Your task to perform on an android device: toggle notifications settings in the gmail app Image 0: 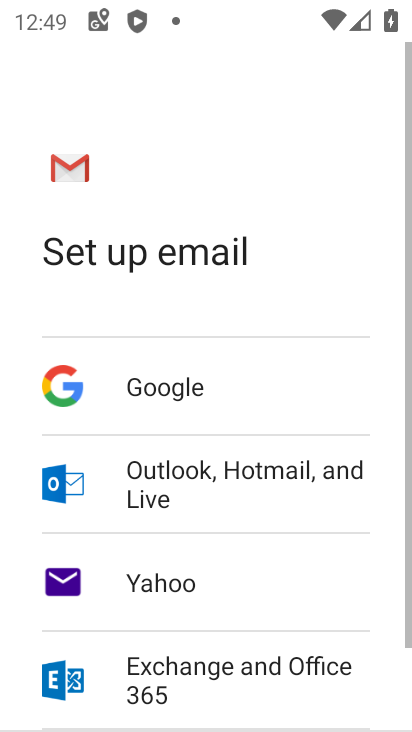
Step 0: press home button
Your task to perform on an android device: toggle notifications settings in the gmail app Image 1: 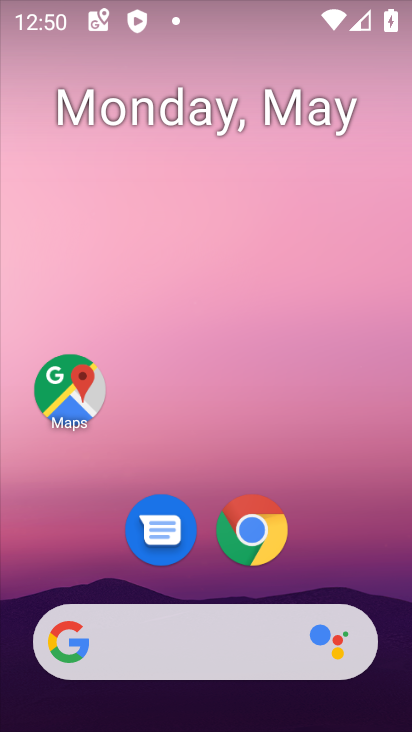
Step 1: drag from (184, 632) to (4, 45)
Your task to perform on an android device: toggle notifications settings in the gmail app Image 2: 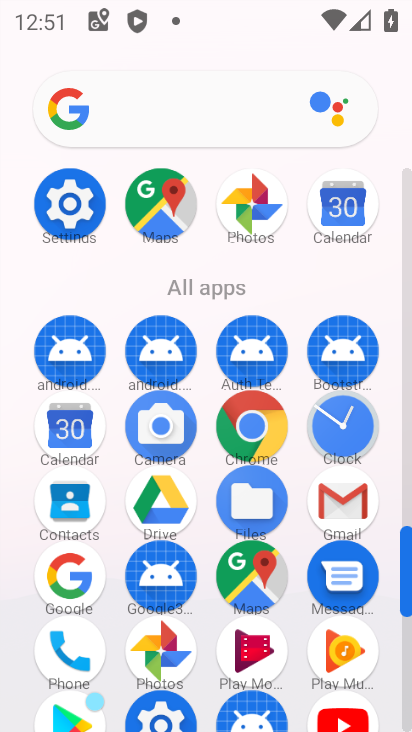
Step 2: click (337, 485)
Your task to perform on an android device: toggle notifications settings in the gmail app Image 3: 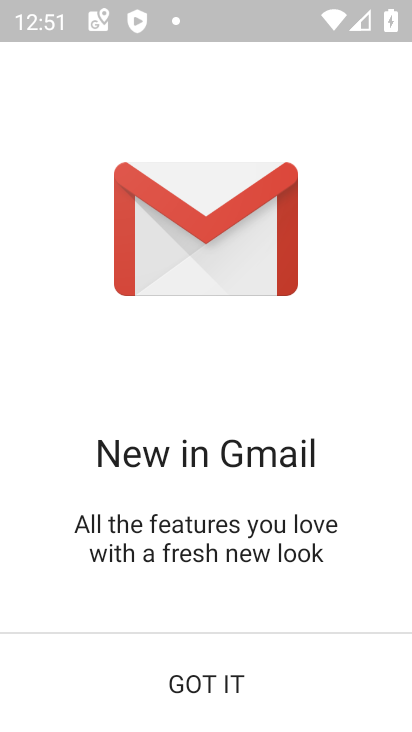
Step 3: click (279, 685)
Your task to perform on an android device: toggle notifications settings in the gmail app Image 4: 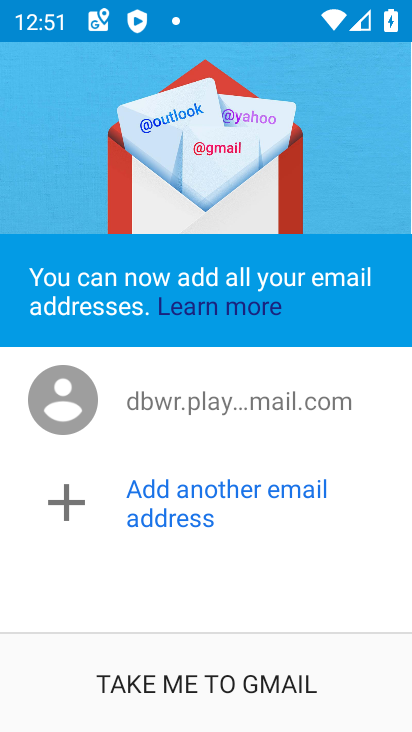
Step 4: click (245, 672)
Your task to perform on an android device: toggle notifications settings in the gmail app Image 5: 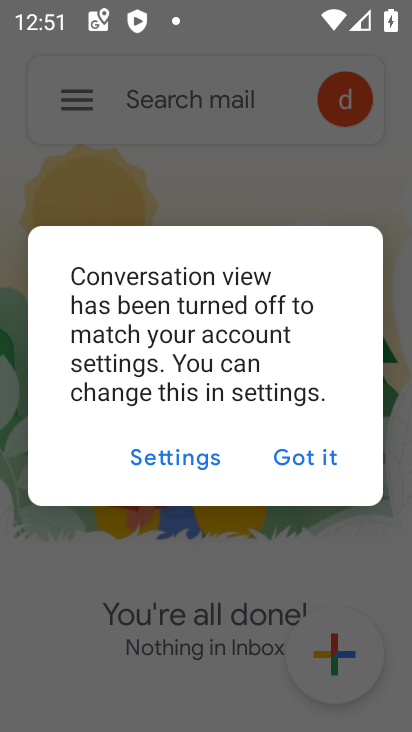
Step 5: click (327, 440)
Your task to perform on an android device: toggle notifications settings in the gmail app Image 6: 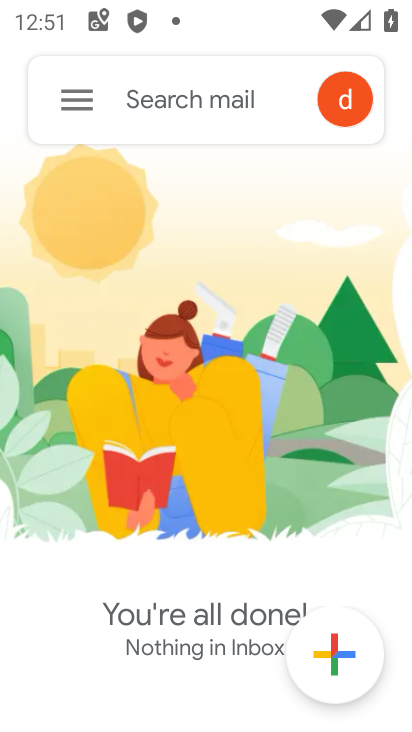
Step 6: click (71, 110)
Your task to perform on an android device: toggle notifications settings in the gmail app Image 7: 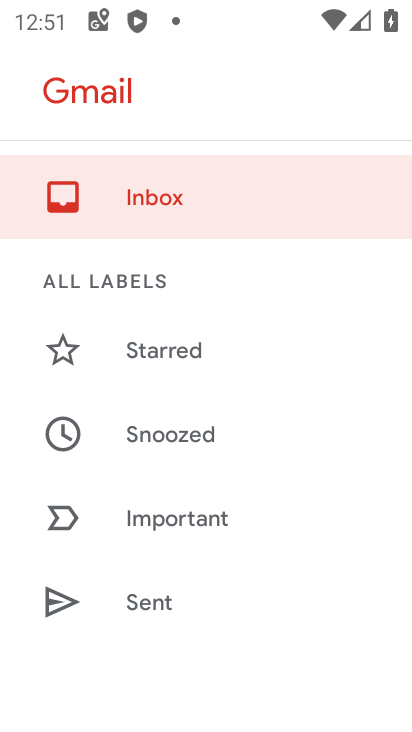
Step 7: drag from (161, 556) to (135, 6)
Your task to perform on an android device: toggle notifications settings in the gmail app Image 8: 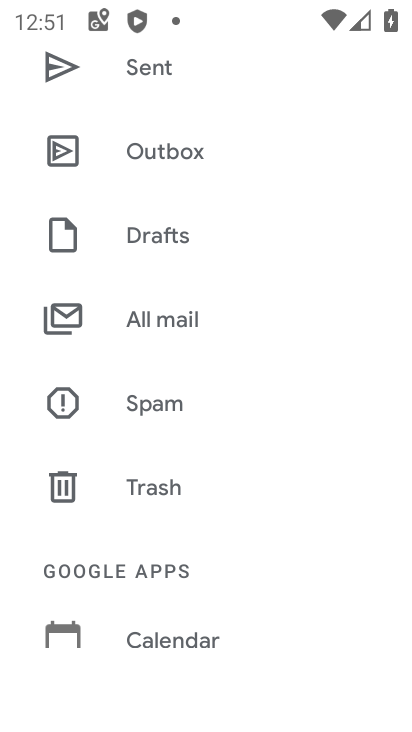
Step 8: drag from (147, 626) to (45, 43)
Your task to perform on an android device: toggle notifications settings in the gmail app Image 9: 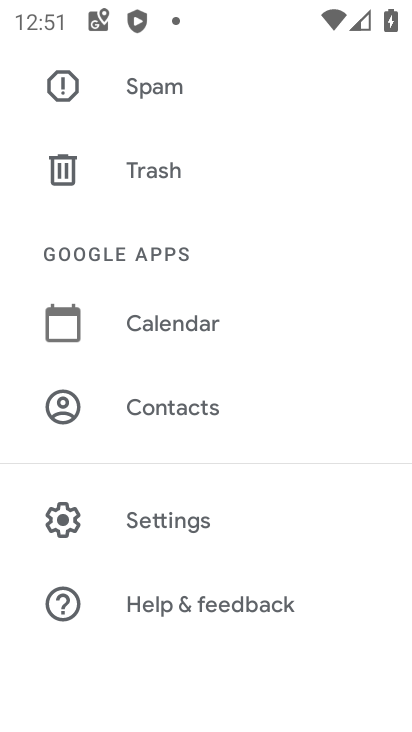
Step 9: click (166, 524)
Your task to perform on an android device: toggle notifications settings in the gmail app Image 10: 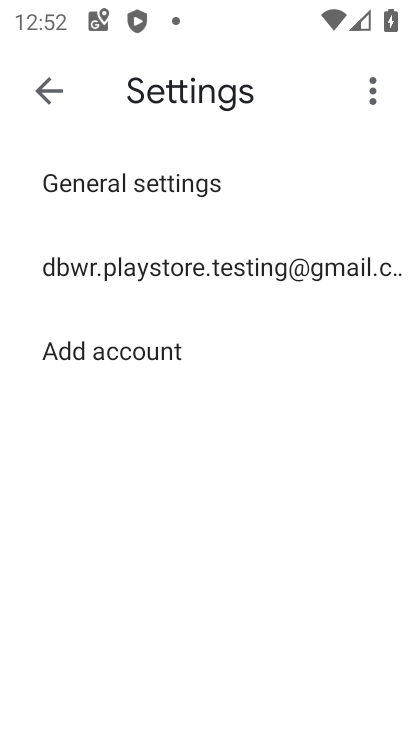
Step 10: click (128, 261)
Your task to perform on an android device: toggle notifications settings in the gmail app Image 11: 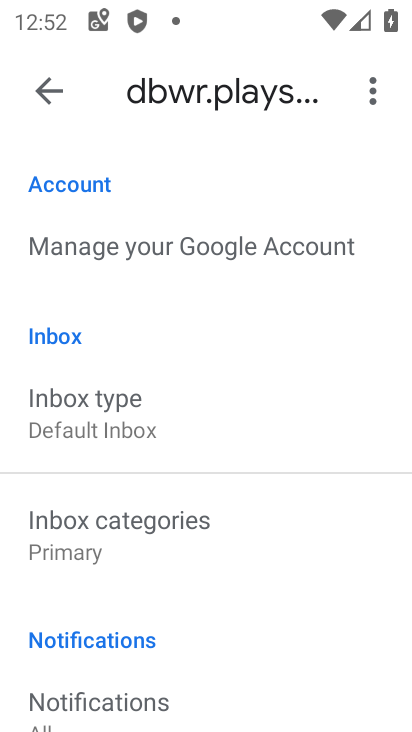
Step 11: drag from (305, 598) to (56, 8)
Your task to perform on an android device: toggle notifications settings in the gmail app Image 12: 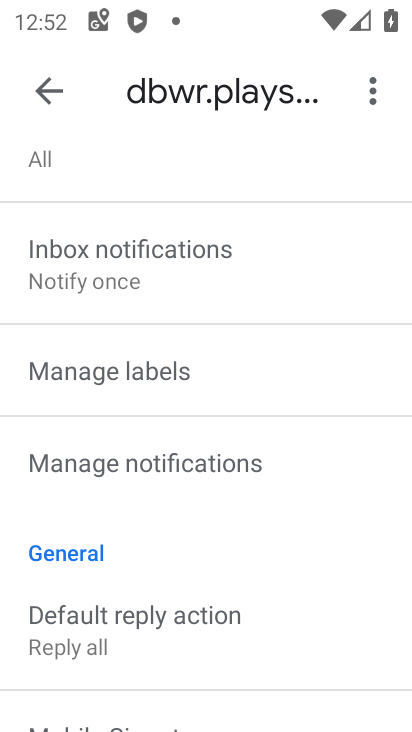
Step 12: click (176, 500)
Your task to perform on an android device: toggle notifications settings in the gmail app Image 13: 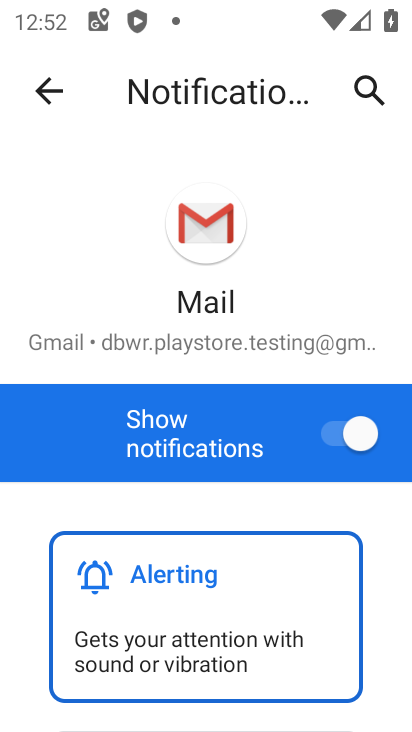
Step 13: click (342, 448)
Your task to perform on an android device: toggle notifications settings in the gmail app Image 14: 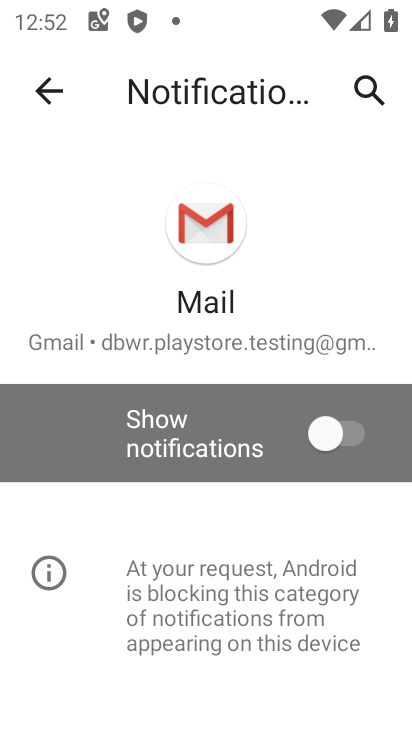
Step 14: task complete